Your task to perform on an android device: toggle improve location accuracy Image 0: 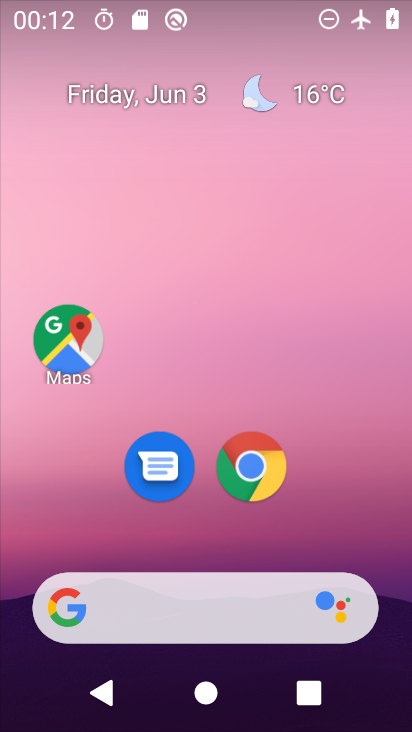
Step 0: drag from (198, 531) to (204, 167)
Your task to perform on an android device: toggle improve location accuracy Image 1: 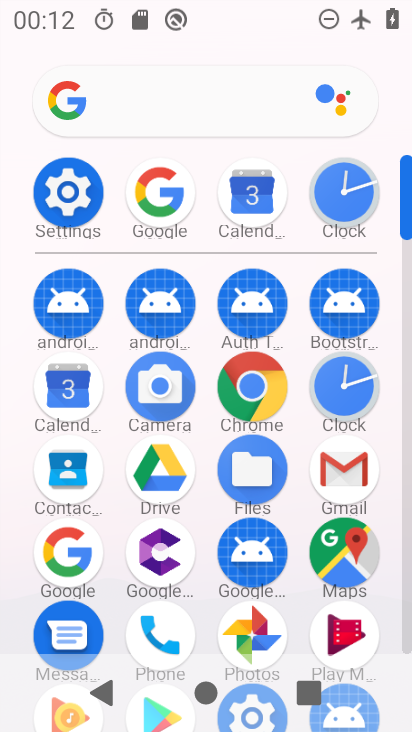
Step 1: click (70, 194)
Your task to perform on an android device: toggle improve location accuracy Image 2: 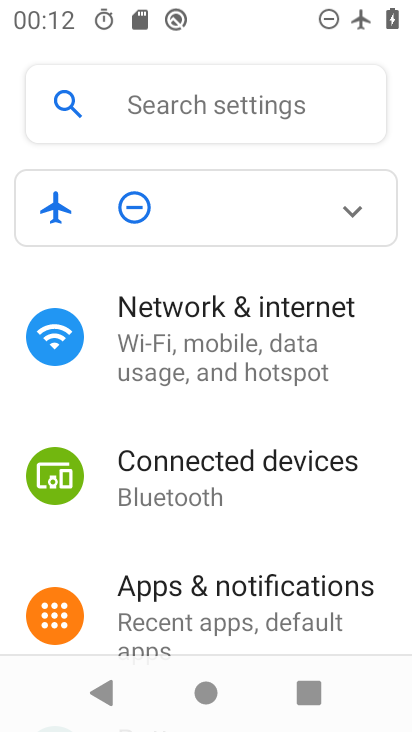
Step 2: drag from (288, 581) to (287, 288)
Your task to perform on an android device: toggle improve location accuracy Image 3: 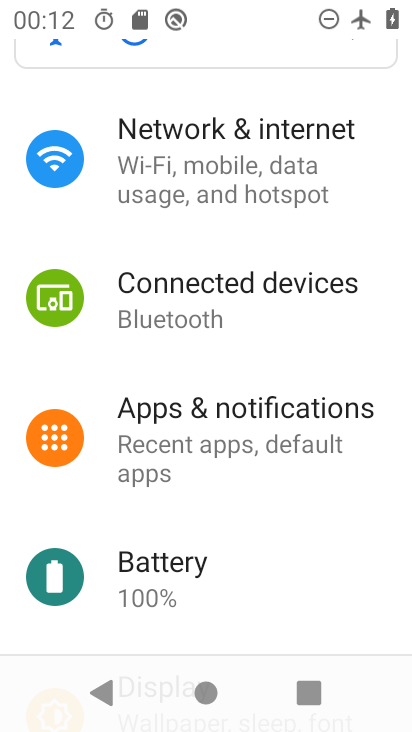
Step 3: drag from (272, 533) to (276, 288)
Your task to perform on an android device: toggle improve location accuracy Image 4: 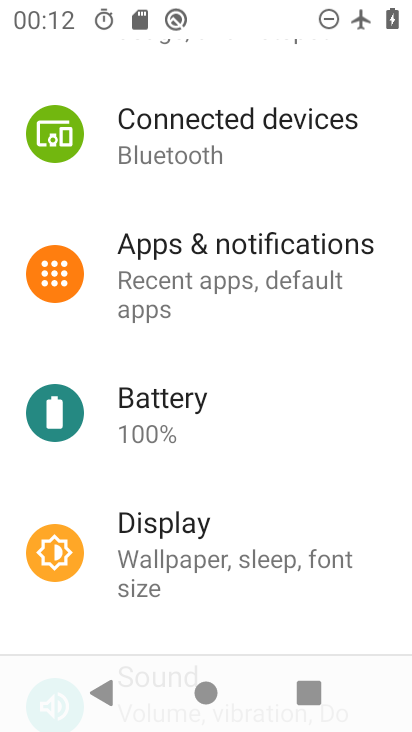
Step 4: drag from (268, 560) to (255, 272)
Your task to perform on an android device: toggle improve location accuracy Image 5: 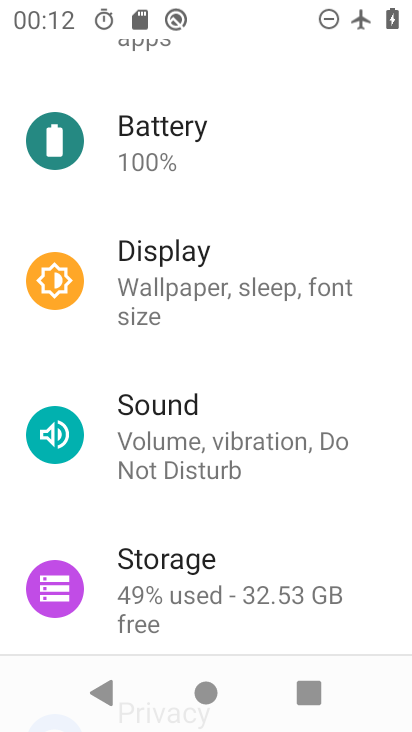
Step 5: drag from (222, 572) to (240, 300)
Your task to perform on an android device: toggle improve location accuracy Image 6: 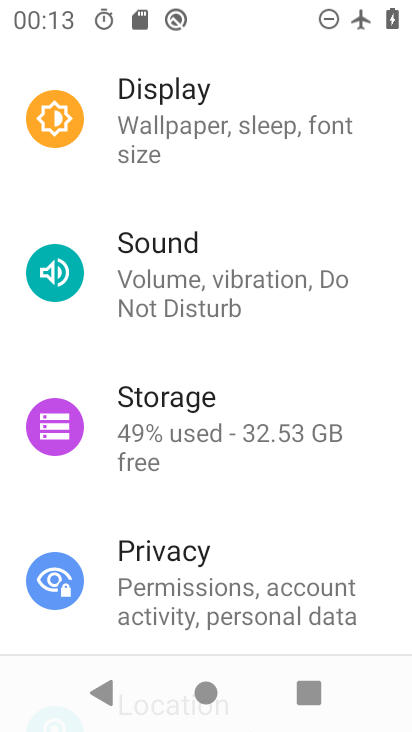
Step 6: drag from (239, 607) to (250, 296)
Your task to perform on an android device: toggle improve location accuracy Image 7: 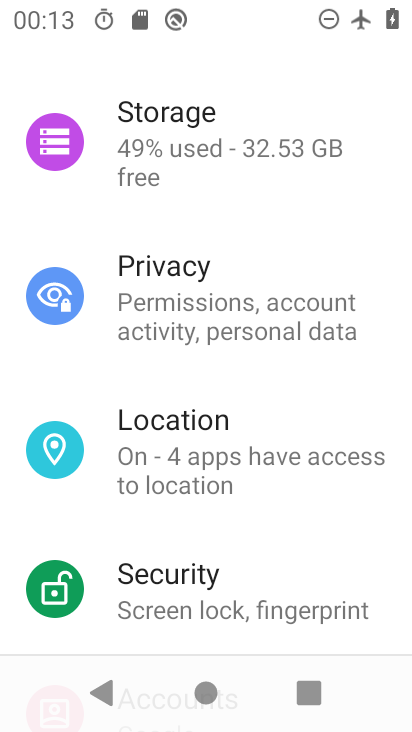
Step 7: click (236, 472)
Your task to perform on an android device: toggle improve location accuracy Image 8: 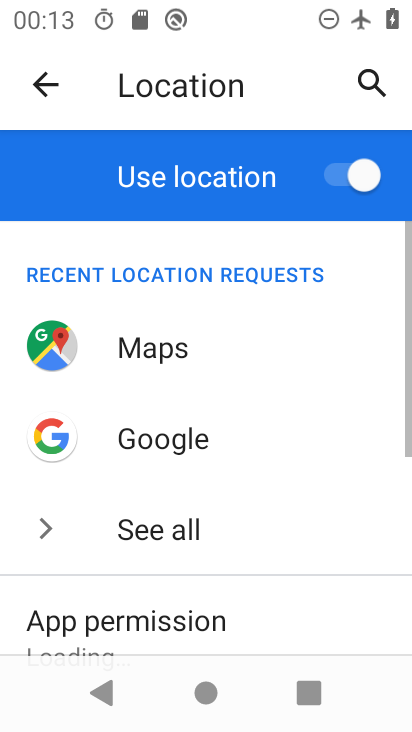
Step 8: drag from (255, 587) to (277, 351)
Your task to perform on an android device: toggle improve location accuracy Image 9: 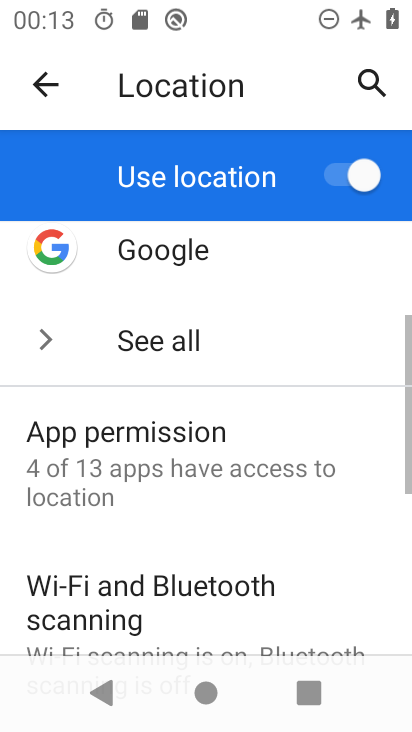
Step 9: drag from (257, 541) to (264, 285)
Your task to perform on an android device: toggle improve location accuracy Image 10: 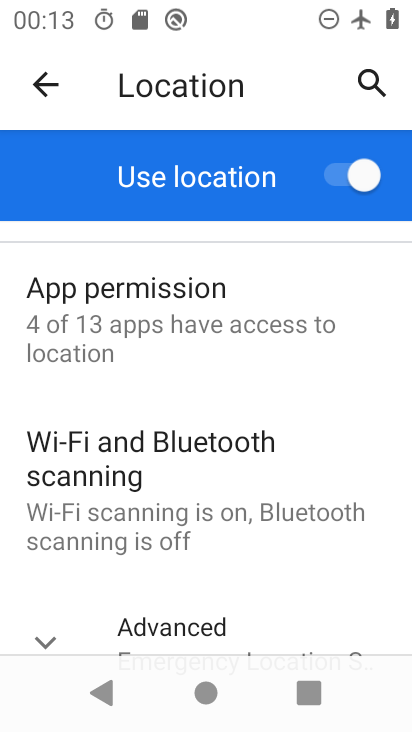
Step 10: drag from (243, 562) to (262, 309)
Your task to perform on an android device: toggle improve location accuracy Image 11: 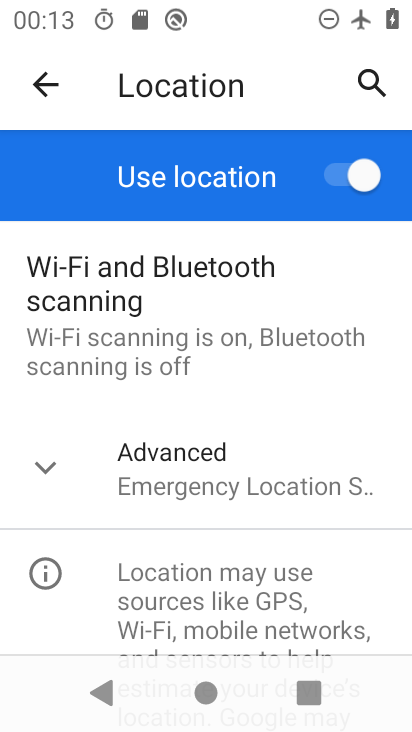
Step 11: drag from (249, 585) to (263, 366)
Your task to perform on an android device: toggle improve location accuracy Image 12: 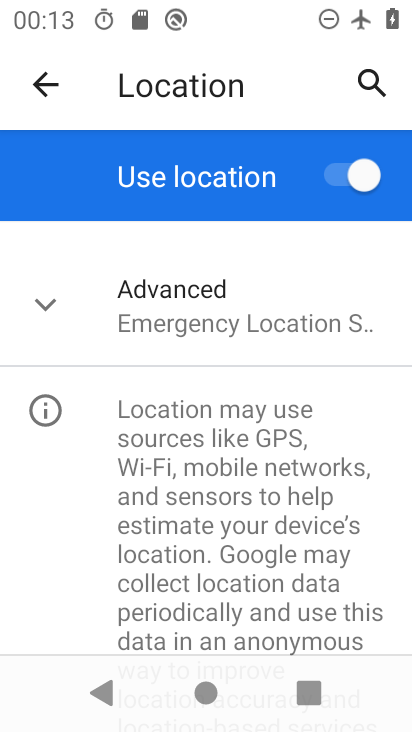
Step 12: click (189, 328)
Your task to perform on an android device: toggle improve location accuracy Image 13: 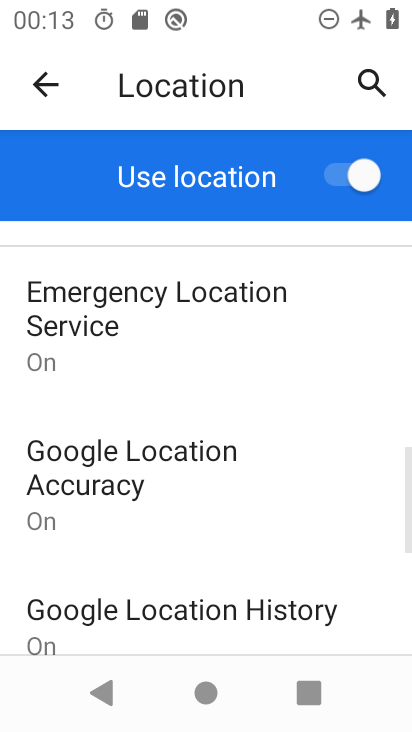
Step 13: click (180, 479)
Your task to perform on an android device: toggle improve location accuracy Image 14: 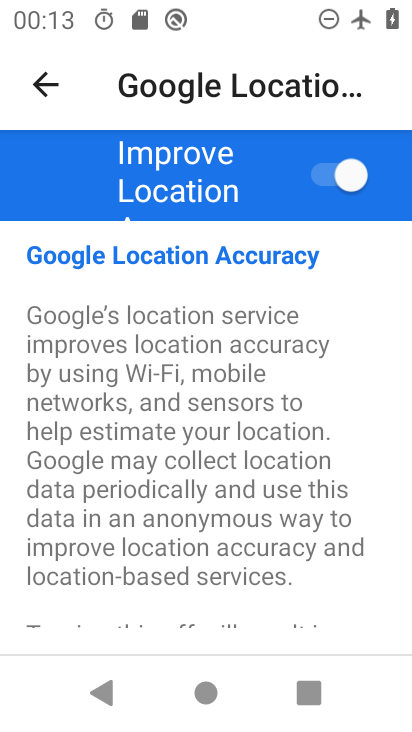
Step 14: click (316, 175)
Your task to perform on an android device: toggle improve location accuracy Image 15: 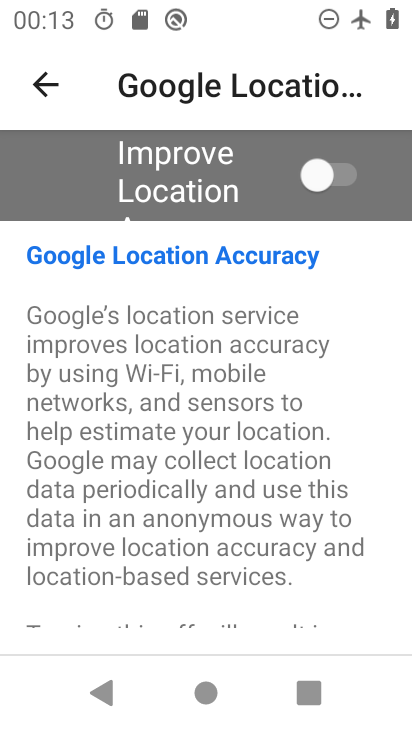
Step 15: task complete